Your task to perform on an android device: move a message to another label in the gmail app Image 0: 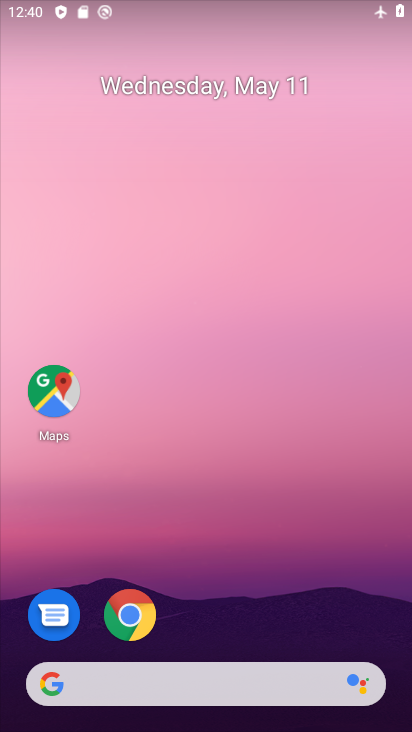
Step 0: click (325, 200)
Your task to perform on an android device: move a message to another label in the gmail app Image 1: 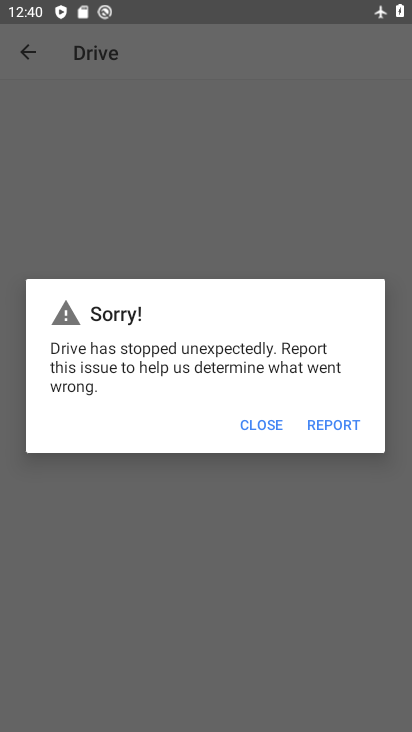
Step 1: press home button
Your task to perform on an android device: move a message to another label in the gmail app Image 2: 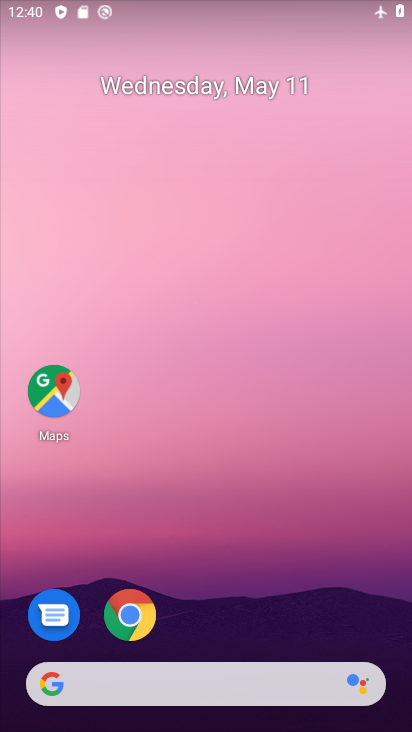
Step 2: drag from (396, 627) to (342, 104)
Your task to perform on an android device: move a message to another label in the gmail app Image 3: 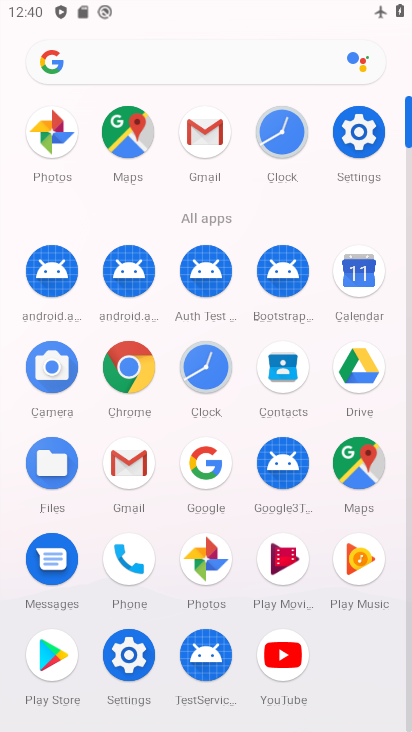
Step 3: click (133, 476)
Your task to perform on an android device: move a message to another label in the gmail app Image 4: 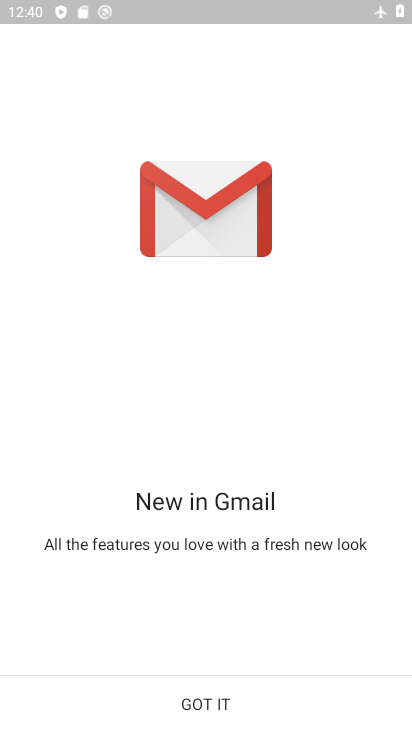
Step 4: click (230, 702)
Your task to perform on an android device: move a message to another label in the gmail app Image 5: 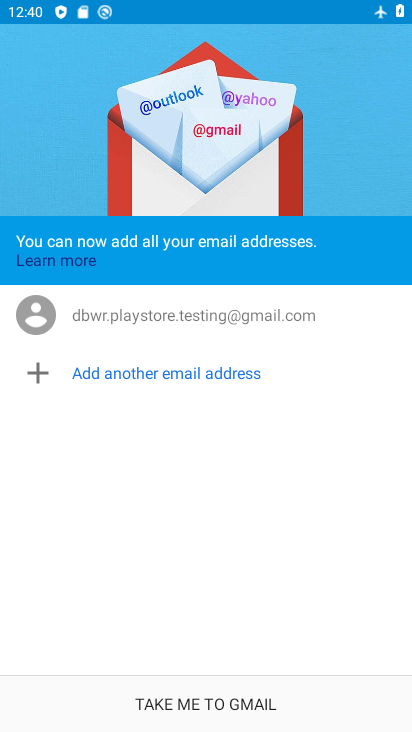
Step 5: click (233, 697)
Your task to perform on an android device: move a message to another label in the gmail app Image 6: 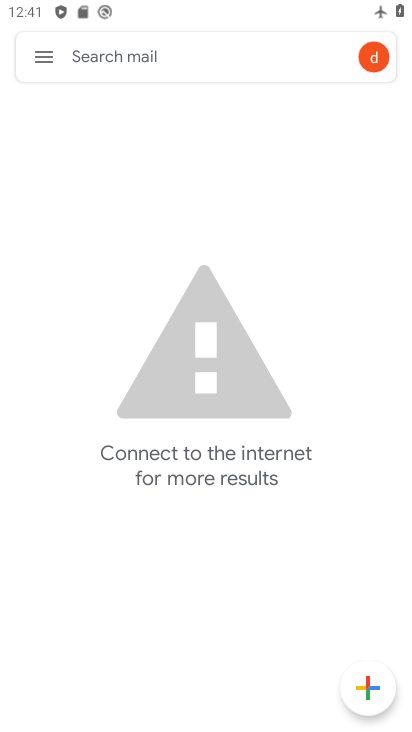
Step 6: press home button
Your task to perform on an android device: move a message to another label in the gmail app Image 7: 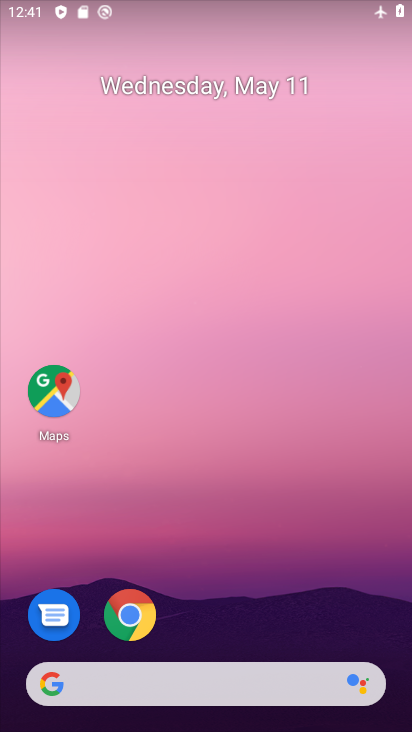
Step 7: drag from (389, 602) to (359, 202)
Your task to perform on an android device: move a message to another label in the gmail app Image 8: 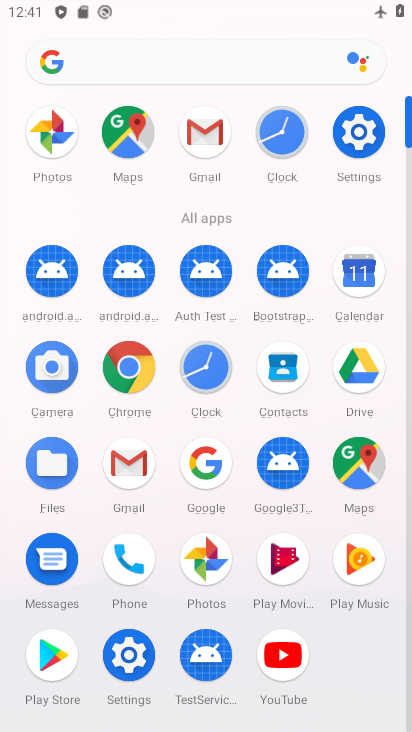
Step 8: click (119, 471)
Your task to perform on an android device: move a message to another label in the gmail app Image 9: 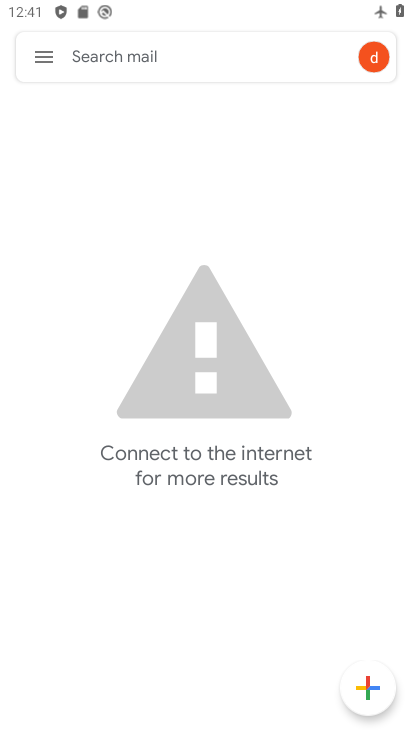
Step 9: click (37, 52)
Your task to perform on an android device: move a message to another label in the gmail app Image 10: 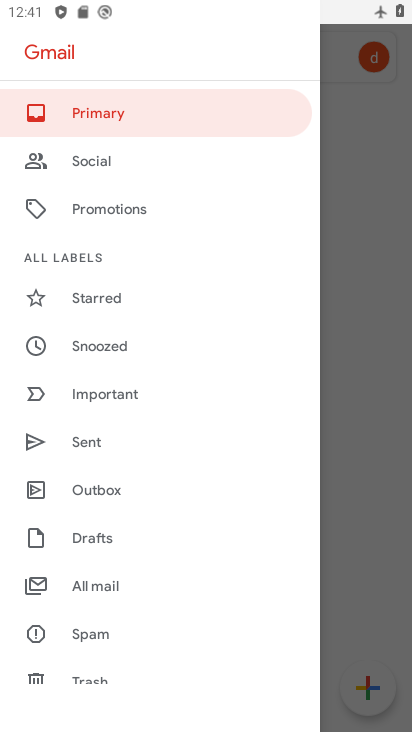
Step 10: task complete